Your task to perform on an android device: Add "panasonic triple a" to the cart on amazon.com, then select checkout. Image 0: 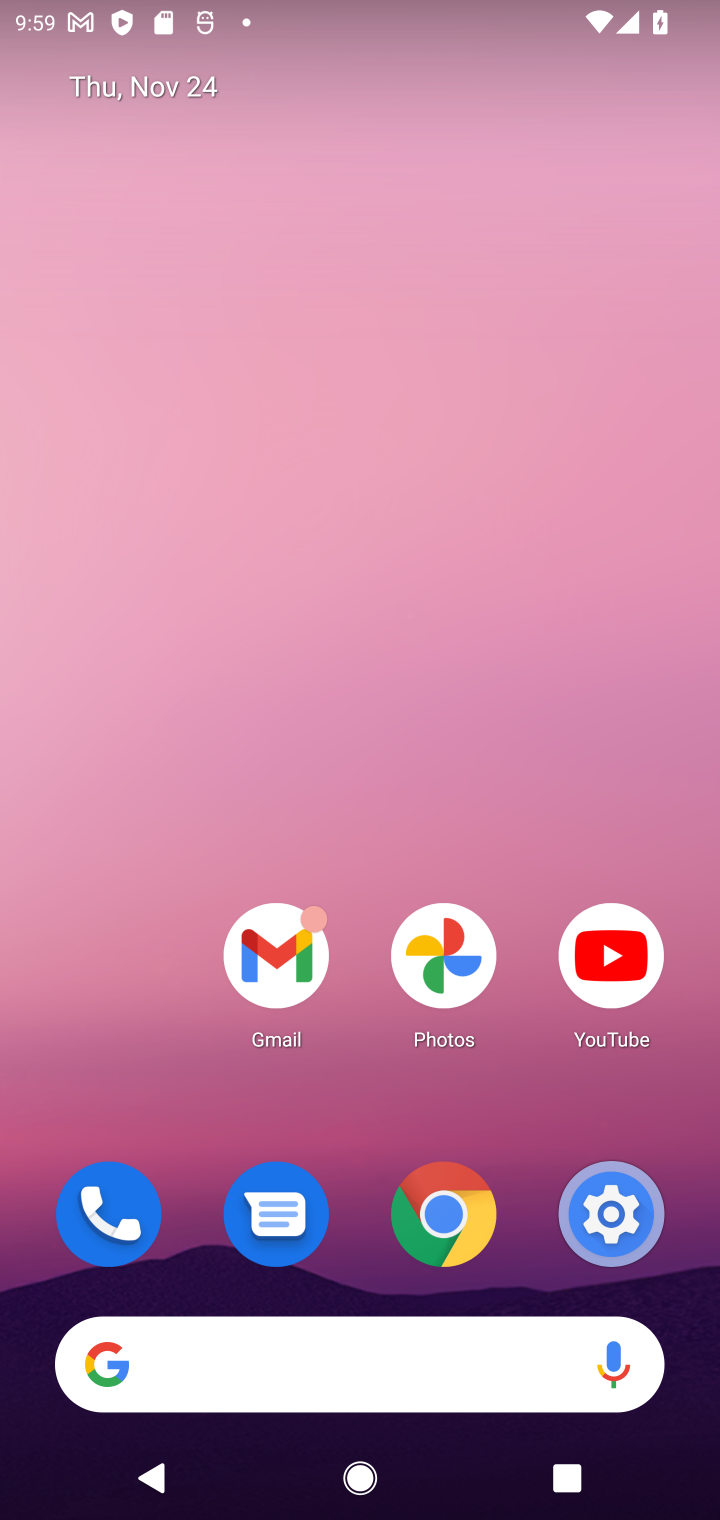
Step 0: click (260, 1341)
Your task to perform on an android device: Add "panasonic triple a" to the cart on amazon.com, then select checkout. Image 1: 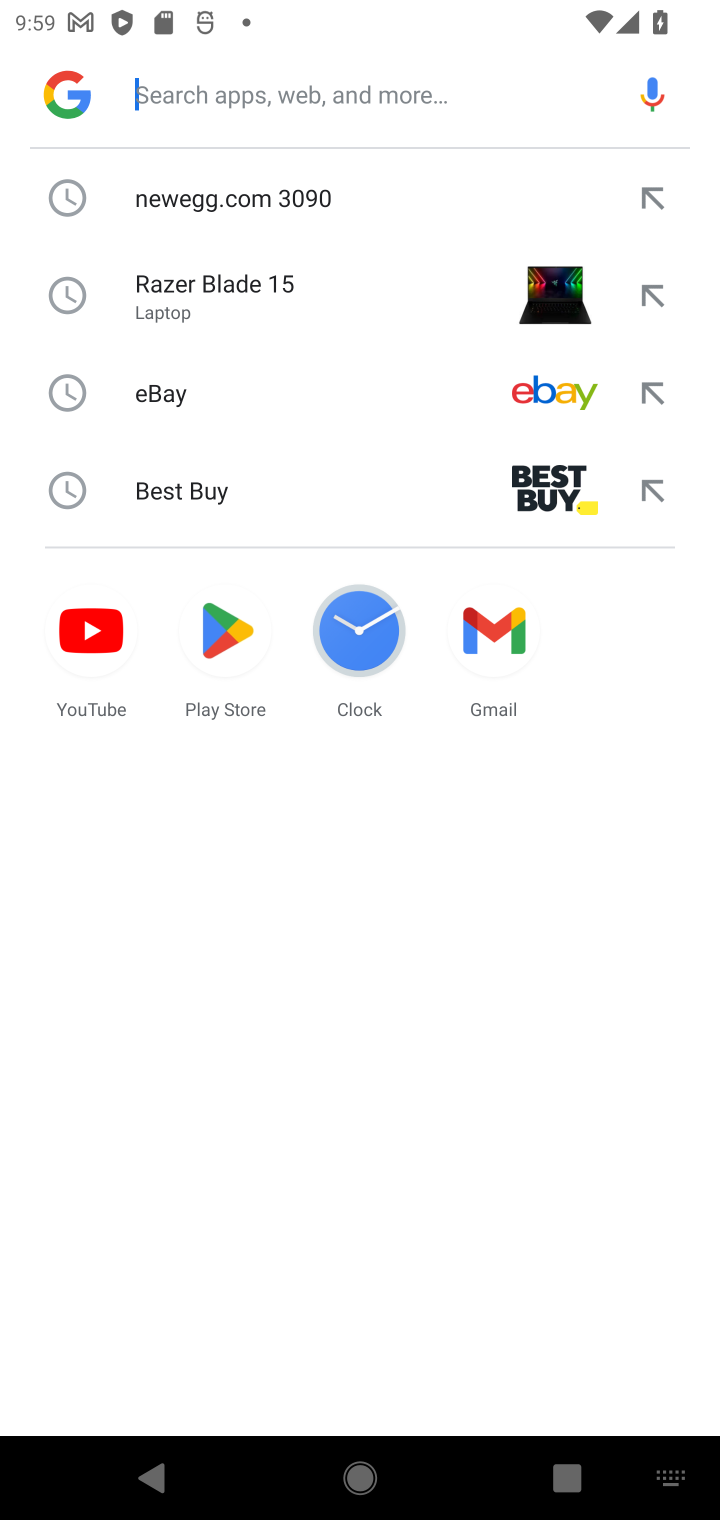
Step 1: click (237, 481)
Your task to perform on an android device: Add "panasonic triple a" to the cart on amazon.com, then select checkout. Image 2: 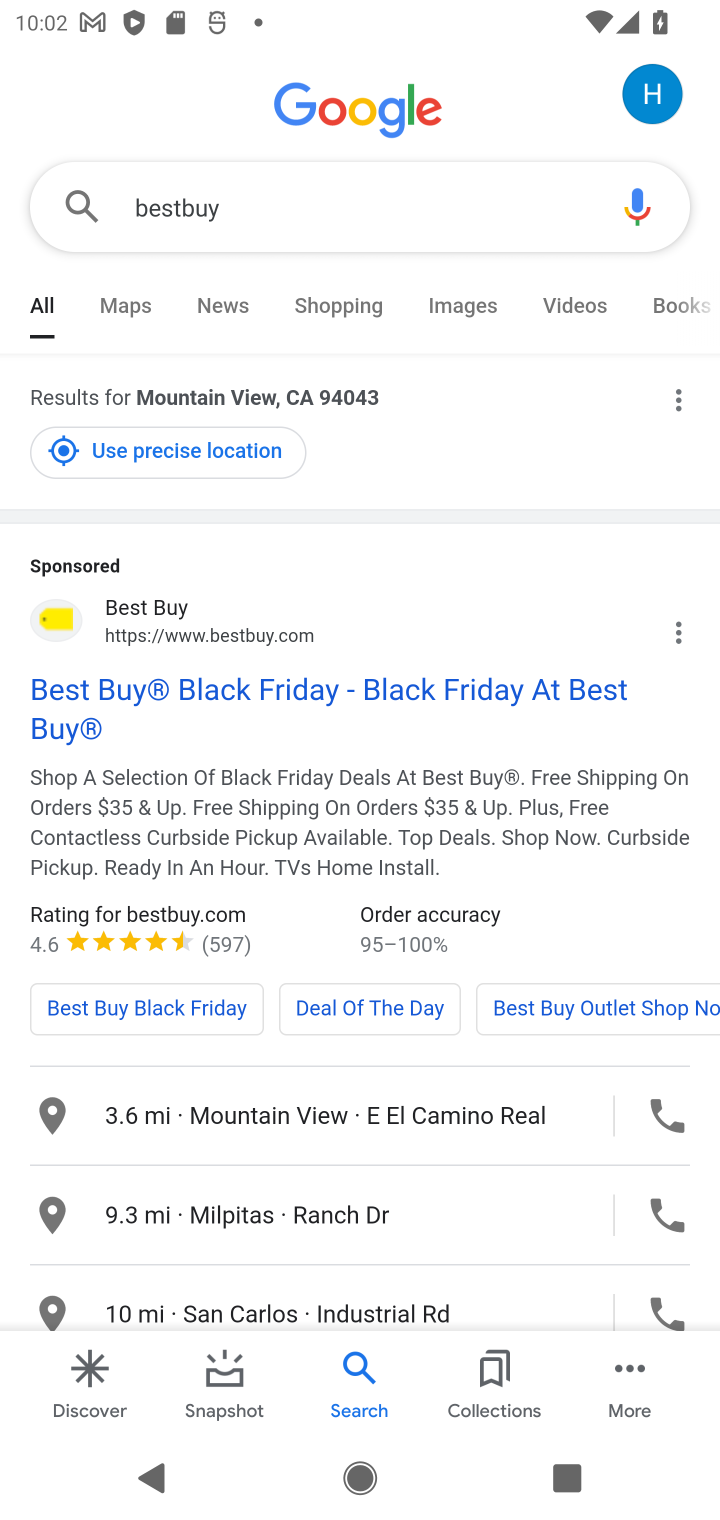
Step 2: click (354, 709)
Your task to perform on an android device: Add "panasonic triple a" to the cart on amazon.com, then select checkout. Image 3: 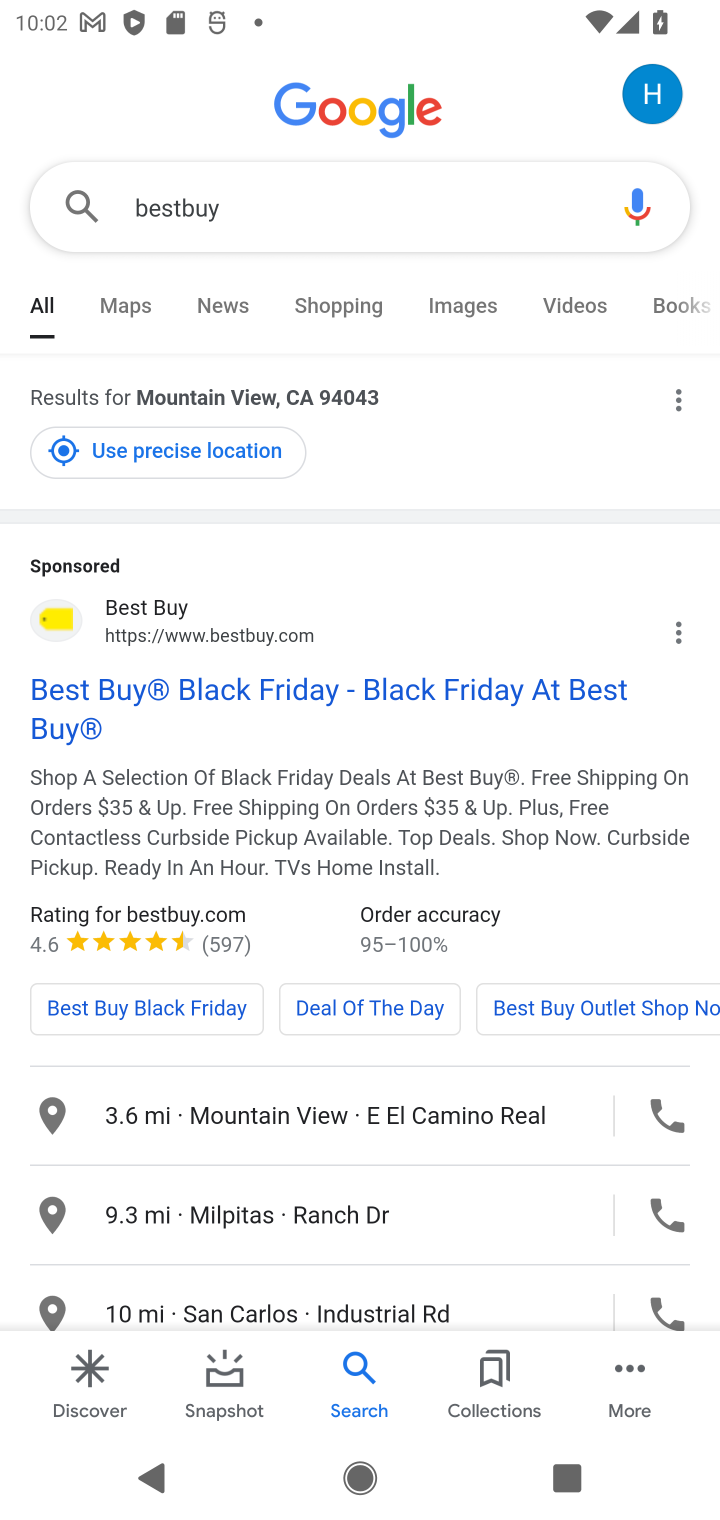
Step 3: task complete